Your task to perform on an android device: Go to network settings Image 0: 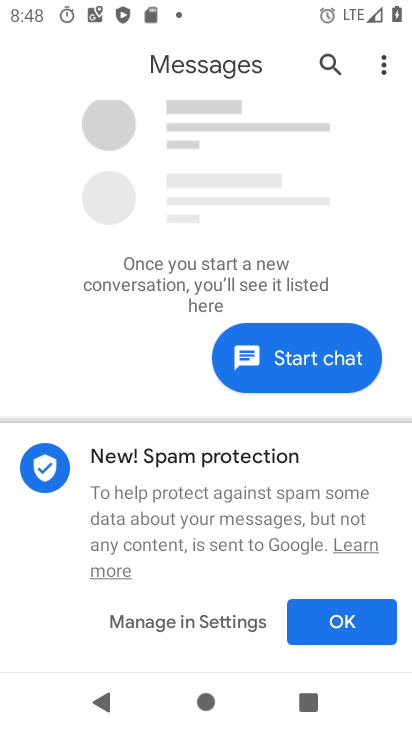
Step 0: press home button
Your task to perform on an android device: Go to network settings Image 1: 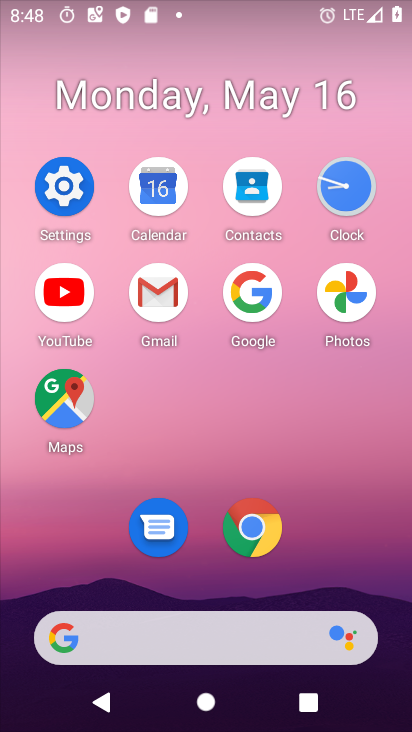
Step 1: click (75, 185)
Your task to perform on an android device: Go to network settings Image 2: 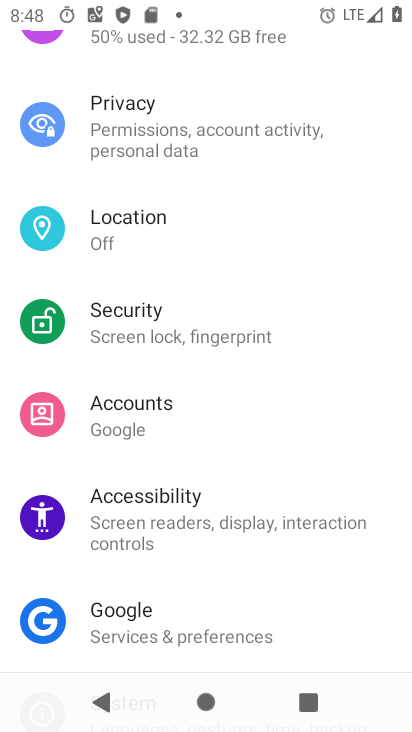
Step 2: drag from (290, 136) to (304, 520)
Your task to perform on an android device: Go to network settings Image 3: 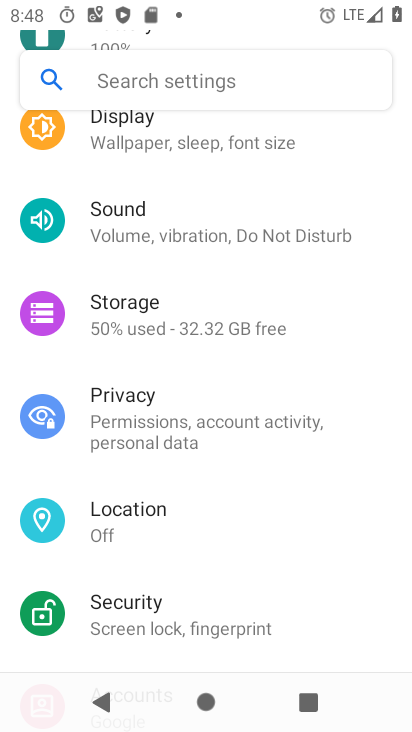
Step 3: drag from (329, 159) to (315, 518)
Your task to perform on an android device: Go to network settings Image 4: 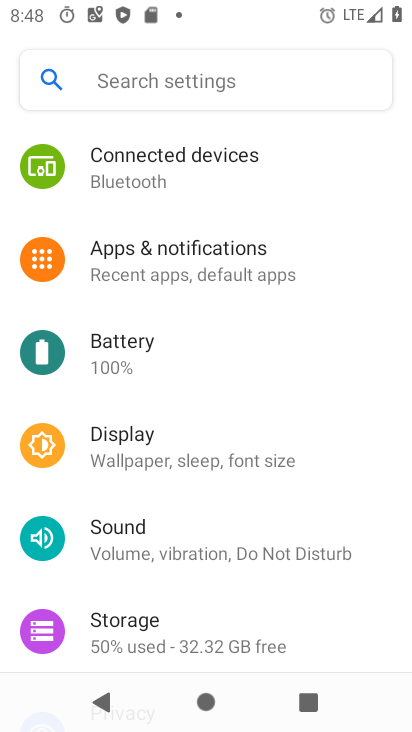
Step 4: drag from (291, 181) to (293, 545)
Your task to perform on an android device: Go to network settings Image 5: 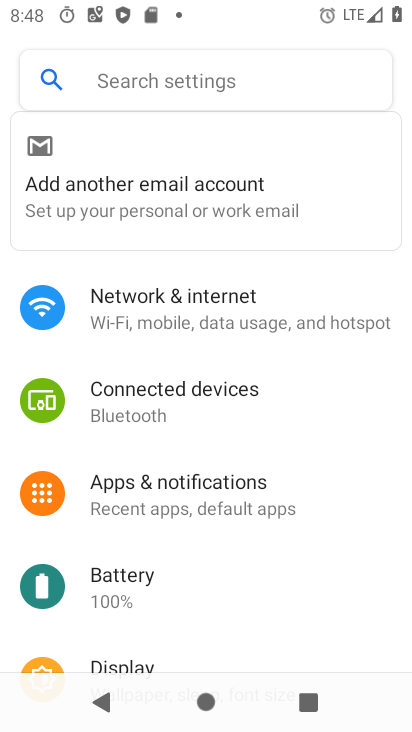
Step 5: click (262, 312)
Your task to perform on an android device: Go to network settings Image 6: 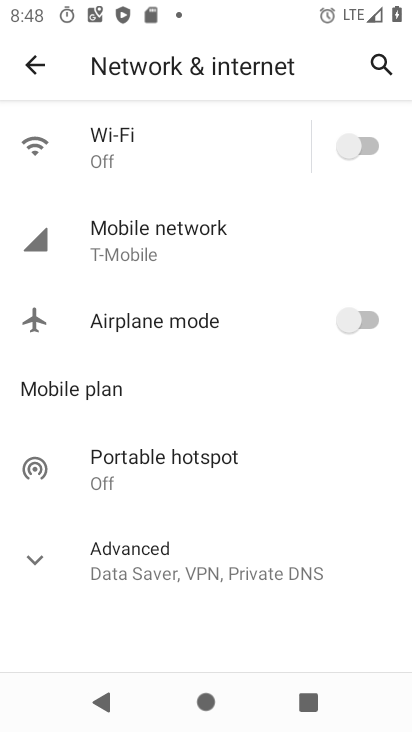
Step 6: click (194, 243)
Your task to perform on an android device: Go to network settings Image 7: 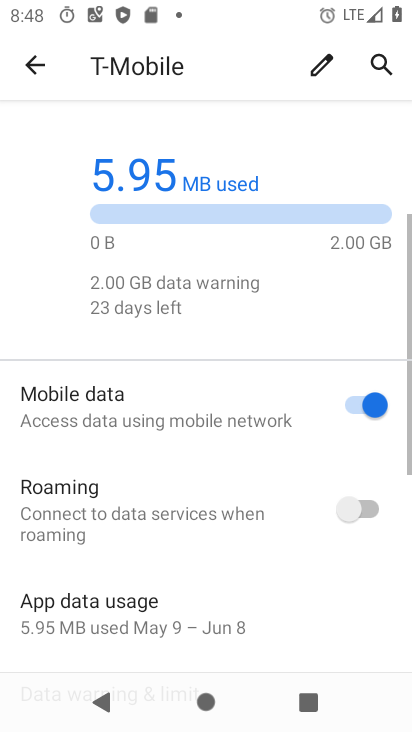
Step 7: task complete